Your task to perform on an android device: Open the stopwatch Image 0: 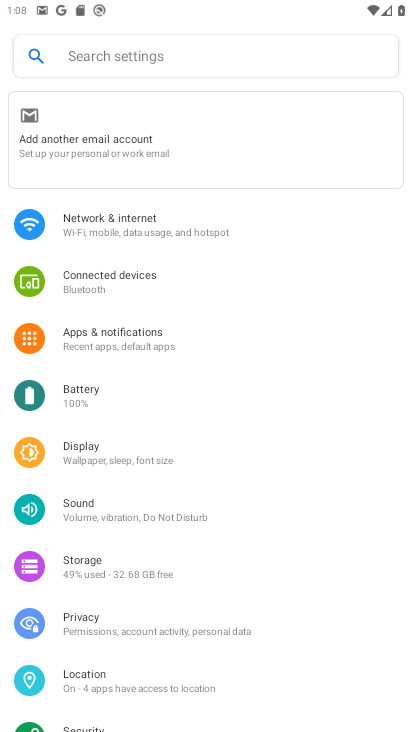
Step 0: press home button
Your task to perform on an android device: Open the stopwatch Image 1: 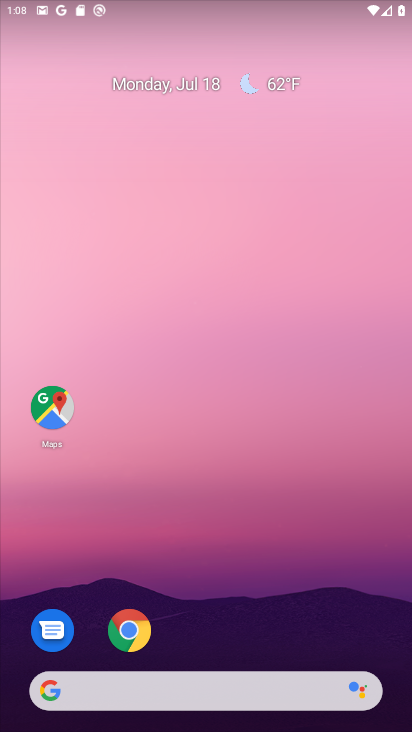
Step 1: drag from (234, 668) to (280, 111)
Your task to perform on an android device: Open the stopwatch Image 2: 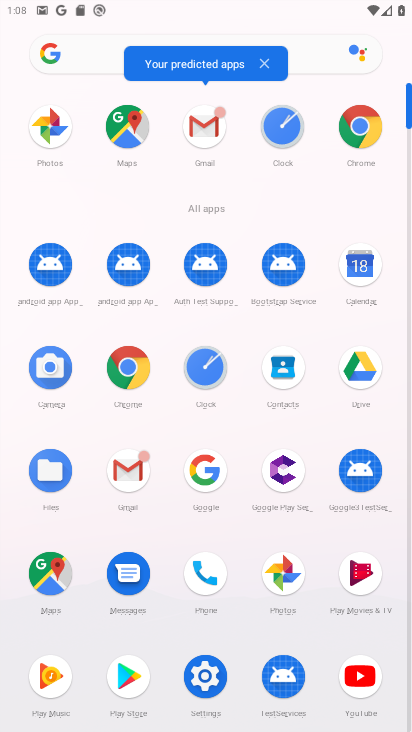
Step 2: click (281, 132)
Your task to perform on an android device: Open the stopwatch Image 3: 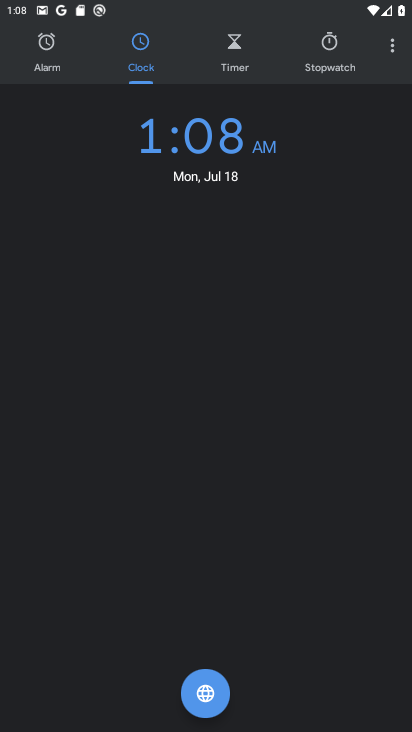
Step 3: click (318, 55)
Your task to perform on an android device: Open the stopwatch Image 4: 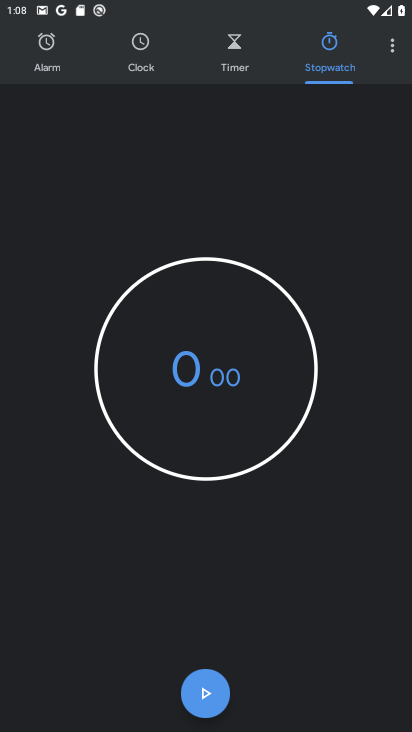
Step 4: task complete